Your task to perform on an android device: change the upload size in google photos Image 0: 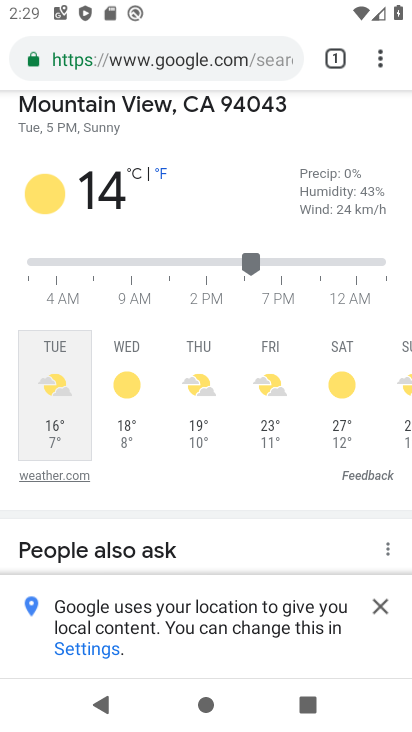
Step 0: press back button
Your task to perform on an android device: change the upload size in google photos Image 1: 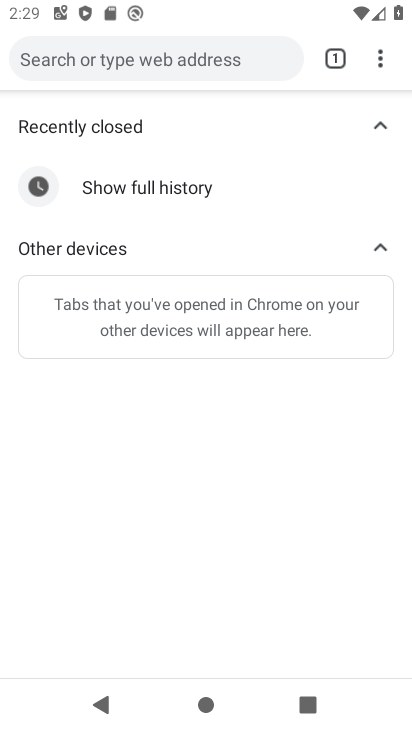
Step 1: press back button
Your task to perform on an android device: change the upload size in google photos Image 2: 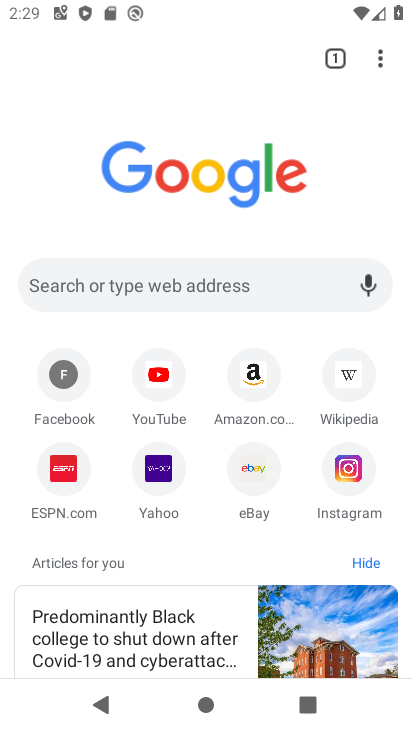
Step 2: press home button
Your task to perform on an android device: change the upload size in google photos Image 3: 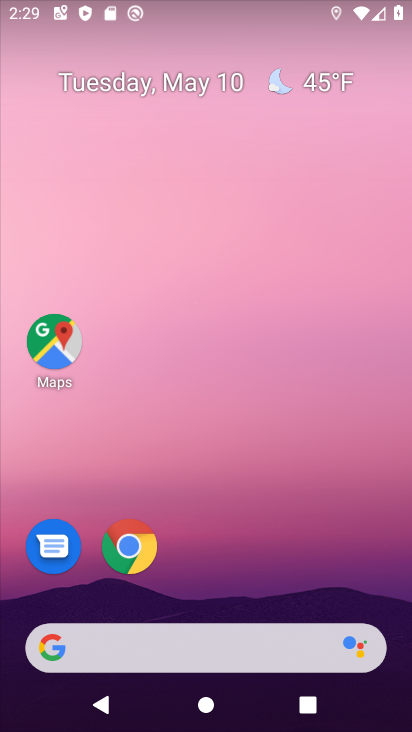
Step 3: drag from (296, 570) to (189, 68)
Your task to perform on an android device: change the upload size in google photos Image 4: 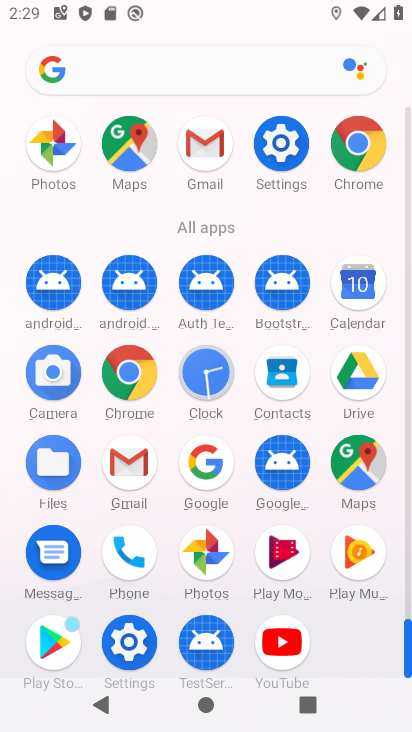
Step 4: click (52, 136)
Your task to perform on an android device: change the upload size in google photos Image 5: 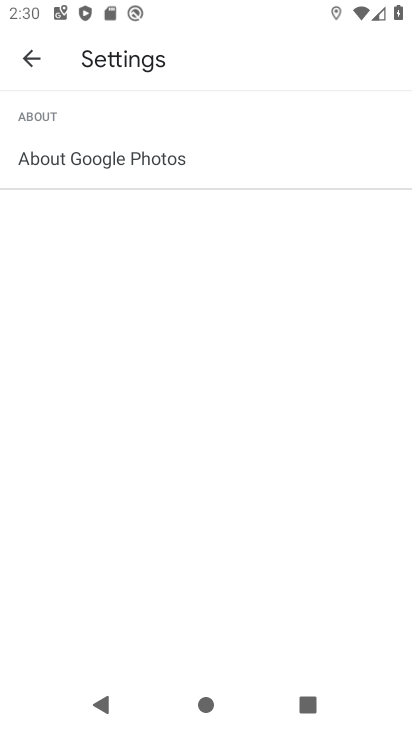
Step 5: click (23, 62)
Your task to perform on an android device: change the upload size in google photos Image 6: 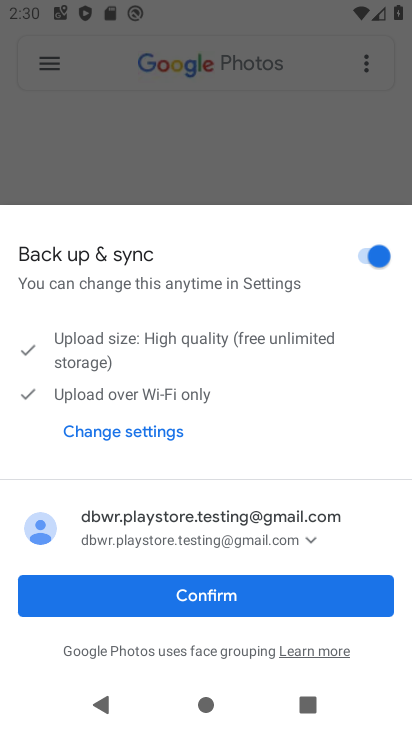
Step 6: click (191, 600)
Your task to perform on an android device: change the upload size in google photos Image 7: 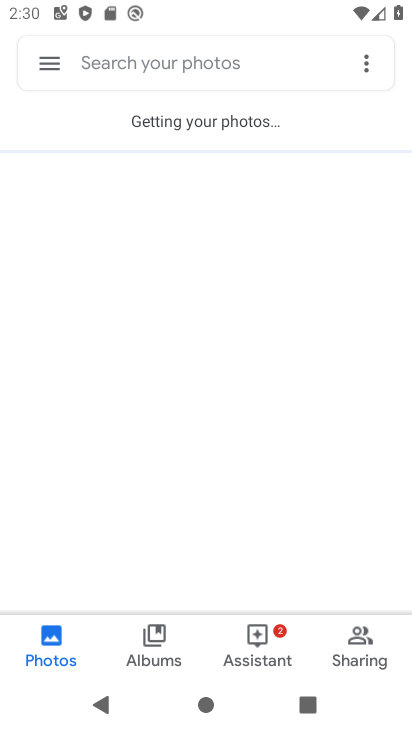
Step 7: click (56, 69)
Your task to perform on an android device: change the upload size in google photos Image 8: 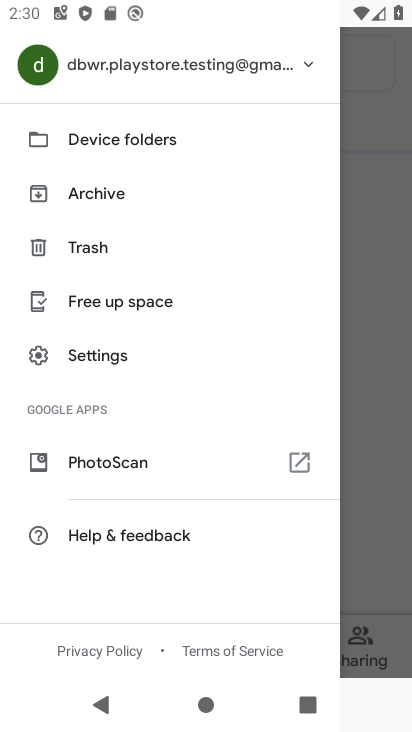
Step 8: click (117, 349)
Your task to perform on an android device: change the upload size in google photos Image 9: 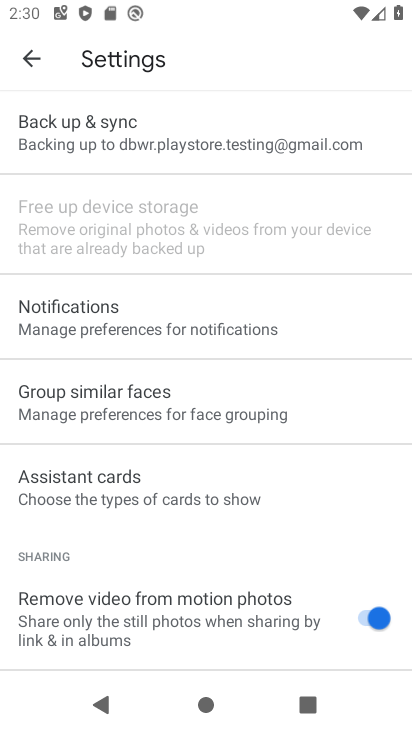
Step 9: drag from (164, 514) to (230, 154)
Your task to perform on an android device: change the upload size in google photos Image 10: 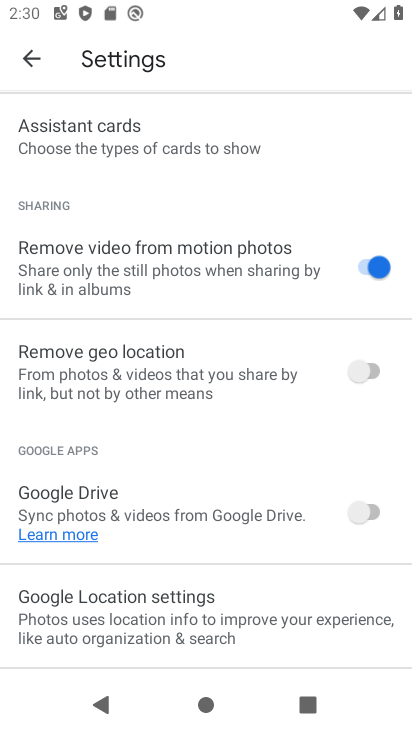
Step 10: drag from (185, 505) to (218, 147)
Your task to perform on an android device: change the upload size in google photos Image 11: 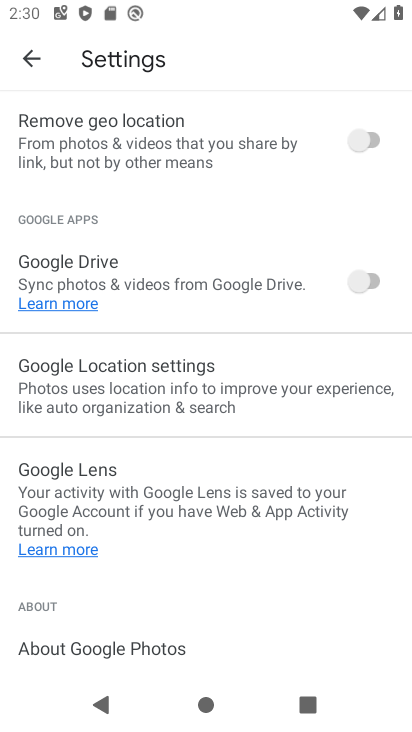
Step 11: drag from (192, 515) to (212, 180)
Your task to perform on an android device: change the upload size in google photos Image 12: 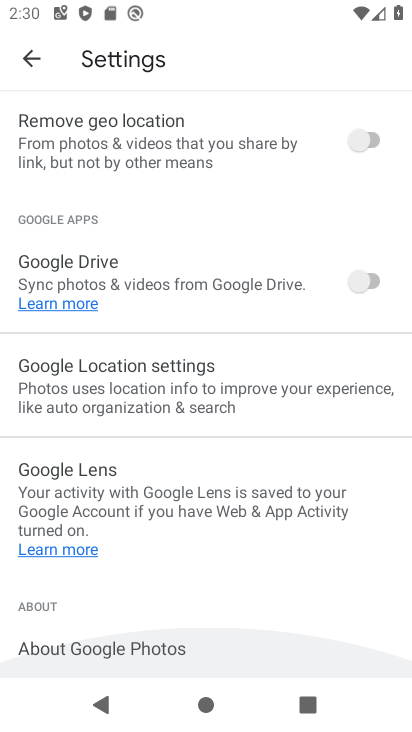
Step 12: drag from (223, 172) to (189, 520)
Your task to perform on an android device: change the upload size in google photos Image 13: 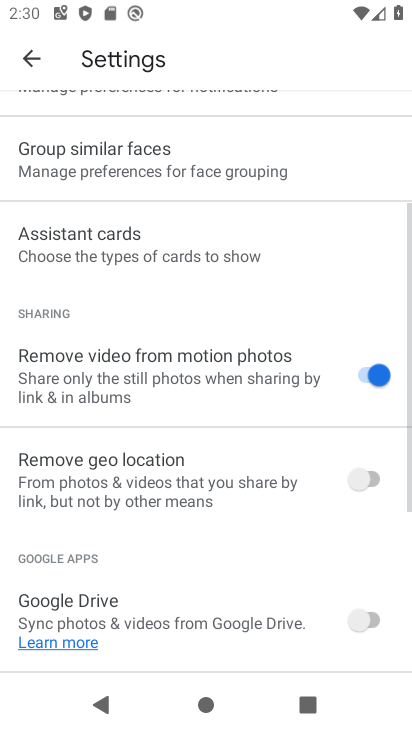
Step 13: drag from (176, 197) to (156, 545)
Your task to perform on an android device: change the upload size in google photos Image 14: 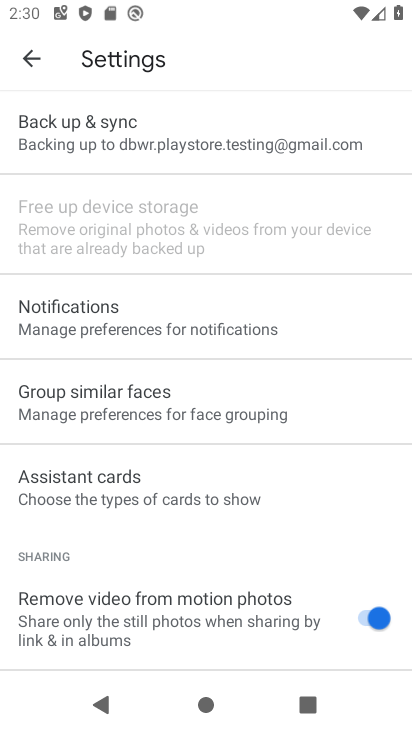
Step 14: click (199, 156)
Your task to perform on an android device: change the upload size in google photos Image 15: 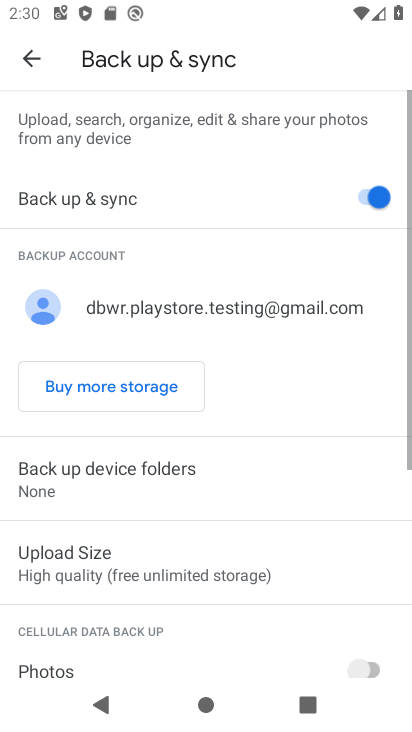
Step 15: drag from (161, 512) to (194, 209)
Your task to perform on an android device: change the upload size in google photos Image 16: 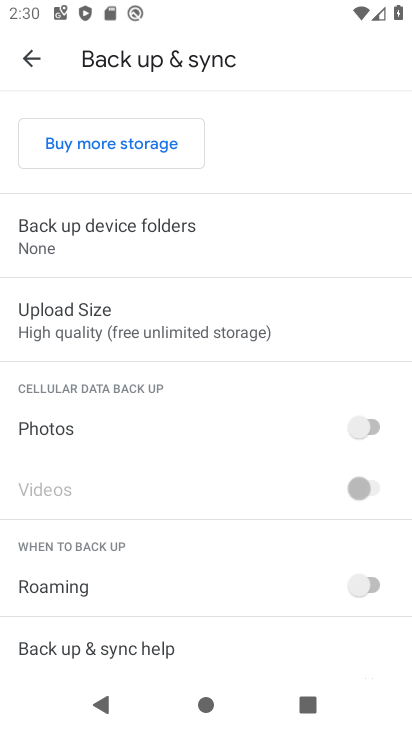
Step 16: click (162, 319)
Your task to perform on an android device: change the upload size in google photos Image 17: 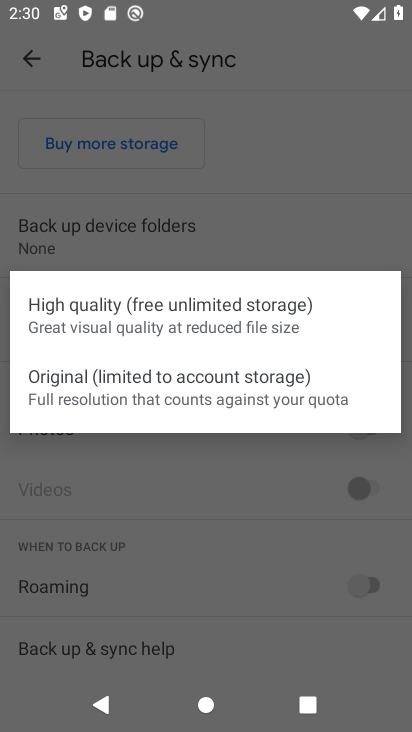
Step 17: click (139, 384)
Your task to perform on an android device: change the upload size in google photos Image 18: 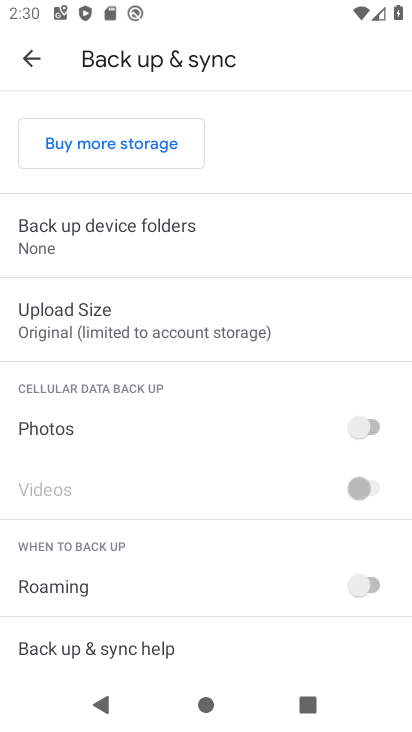
Step 18: task complete